Your task to perform on an android device: turn notification dots off Image 0: 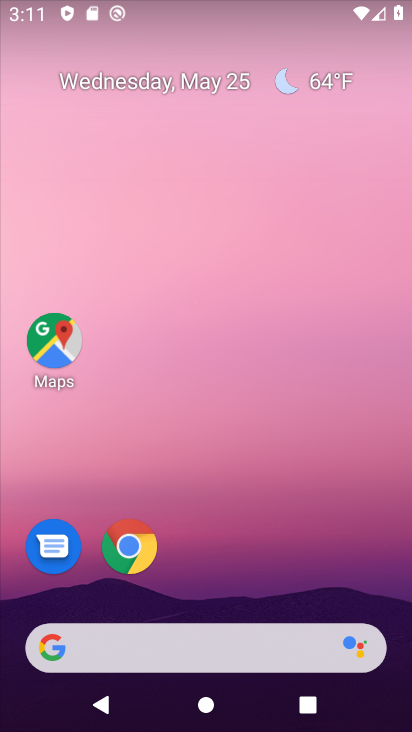
Step 0: drag from (188, 581) to (158, 301)
Your task to perform on an android device: turn notification dots off Image 1: 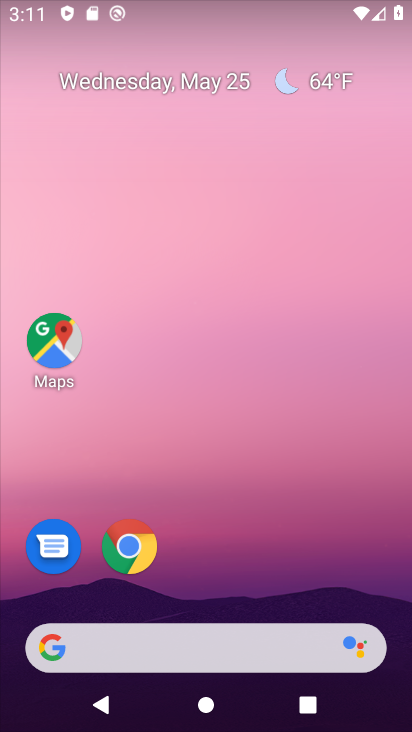
Step 1: drag from (264, 590) to (180, 135)
Your task to perform on an android device: turn notification dots off Image 2: 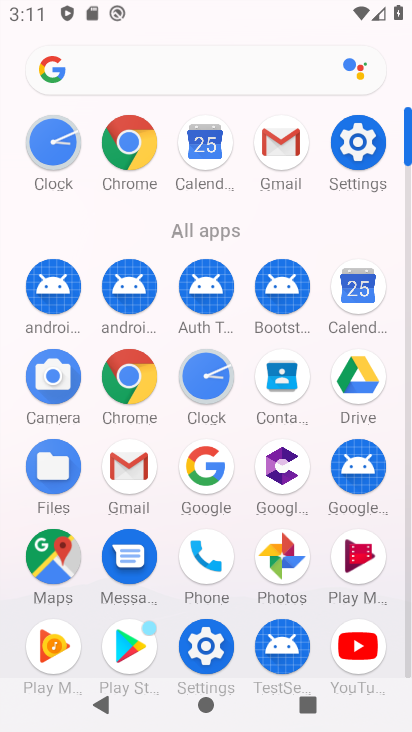
Step 2: click (366, 158)
Your task to perform on an android device: turn notification dots off Image 3: 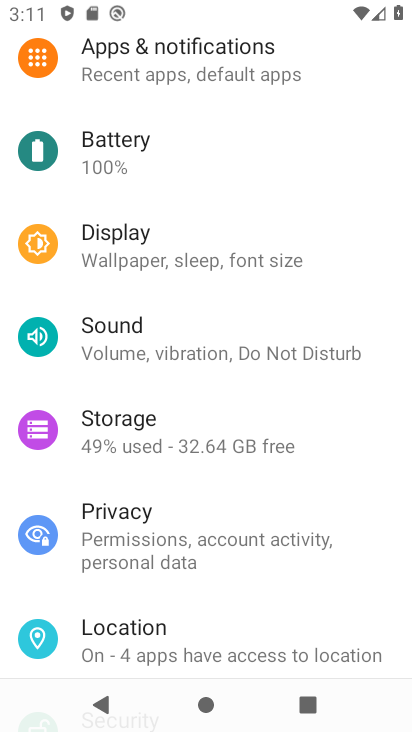
Step 3: click (206, 96)
Your task to perform on an android device: turn notification dots off Image 4: 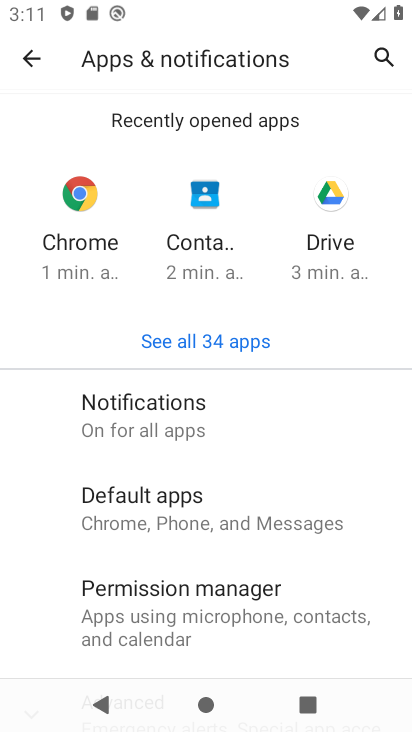
Step 4: click (138, 421)
Your task to perform on an android device: turn notification dots off Image 5: 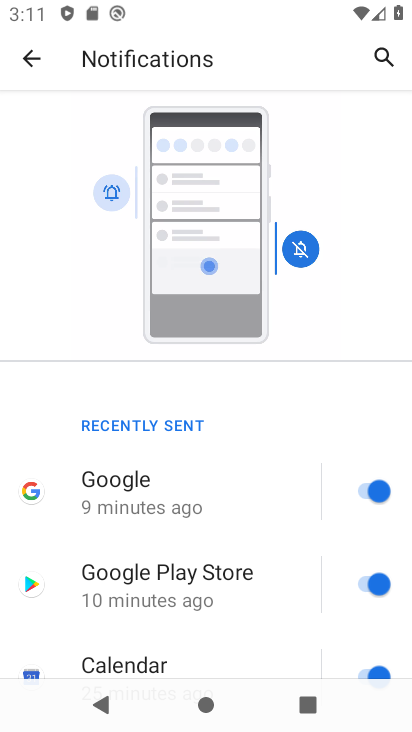
Step 5: drag from (177, 605) to (350, 34)
Your task to perform on an android device: turn notification dots off Image 6: 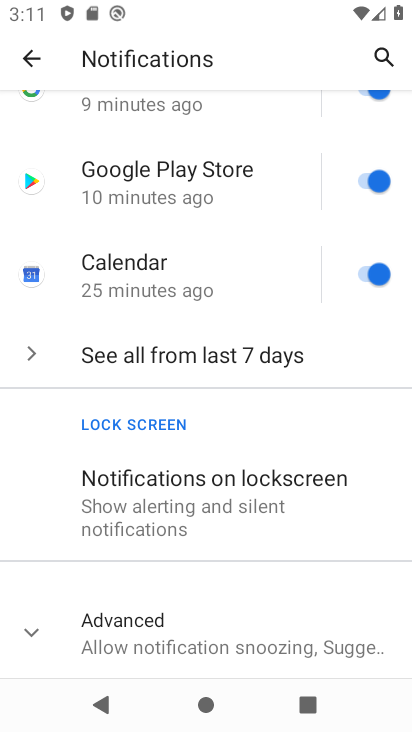
Step 6: click (171, 622)
Your task to perform on an android device: turn notification dots off Image 7: 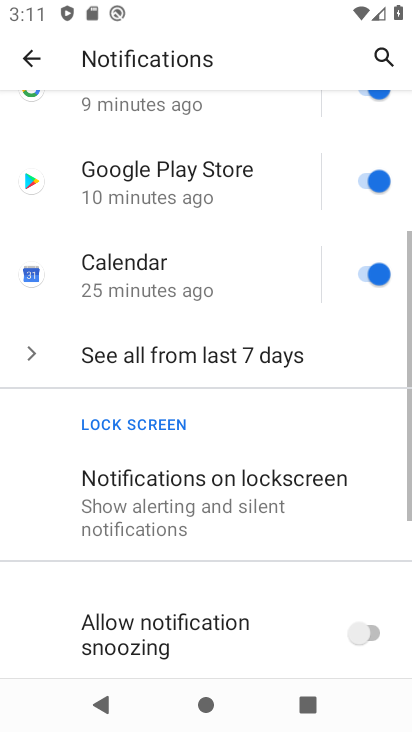
Step 7: drag from (171, 622) to (102, 321)
Your task to perform on an android device: turn notification dots off Image 8: 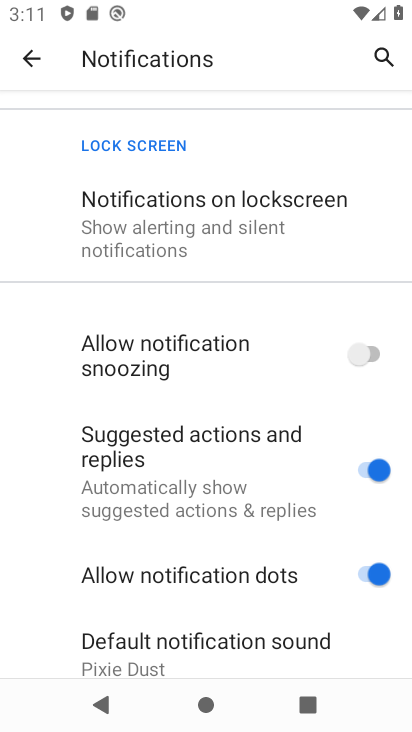
Step 8: click (382, 573)
Your task to perform on an android device: turn notification dots off Image 9: 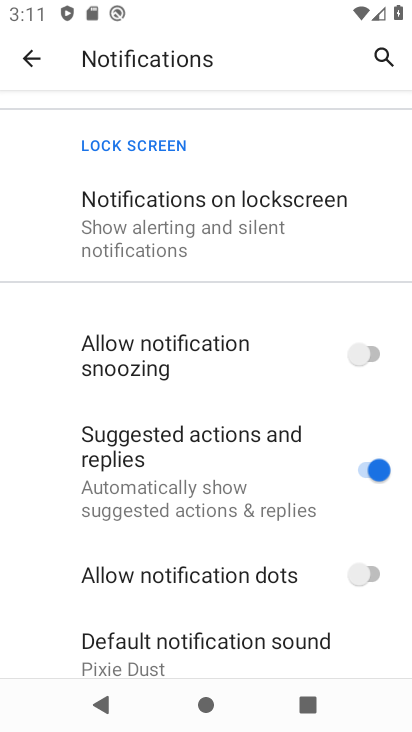
Step 9: task complete